Your task to perform on an android device: Open battery settings Image 0: 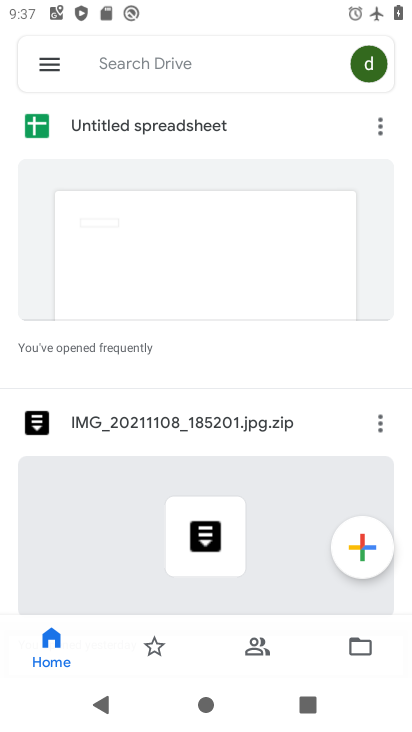
Step 0: press home button
Your task to perform on an android device: Open battery settings Image 1: 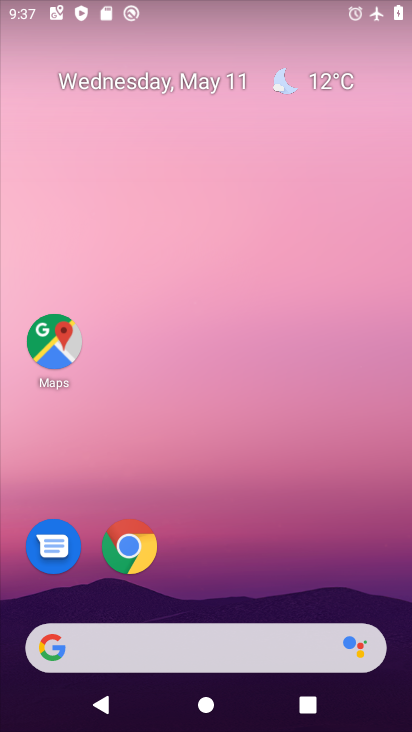
Step 1: drag from (397, 636) to (292, 84)
Your task to perform on an android device: Open battery settings Image 2: 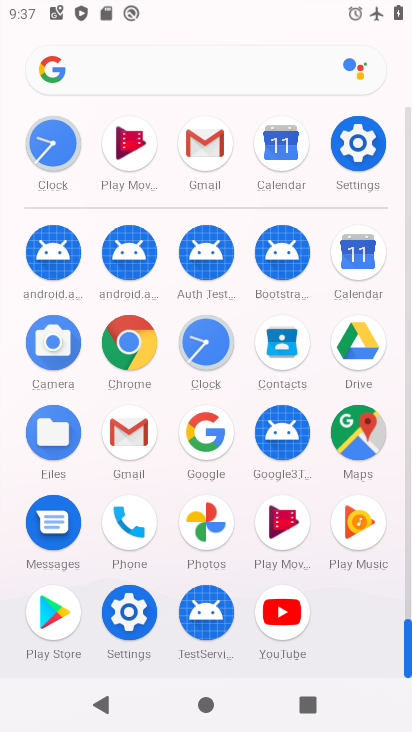
Step 2: click (128, 609)
Your task to perform on an android device: Open battery settings Image 3: 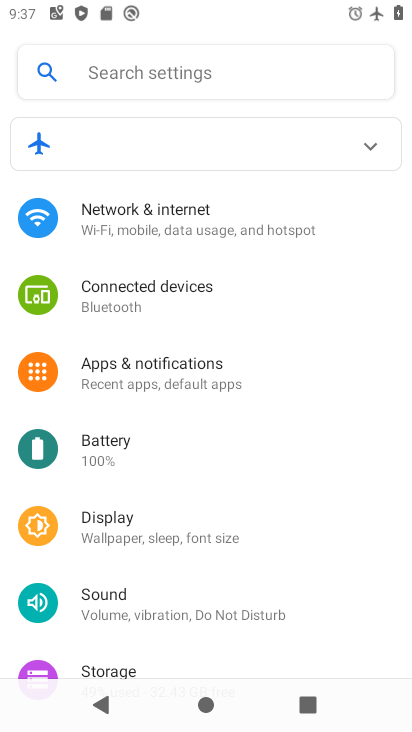
Step 3: click (109, 438)
Your task to perform on an android device: Open battery settings Image 4: 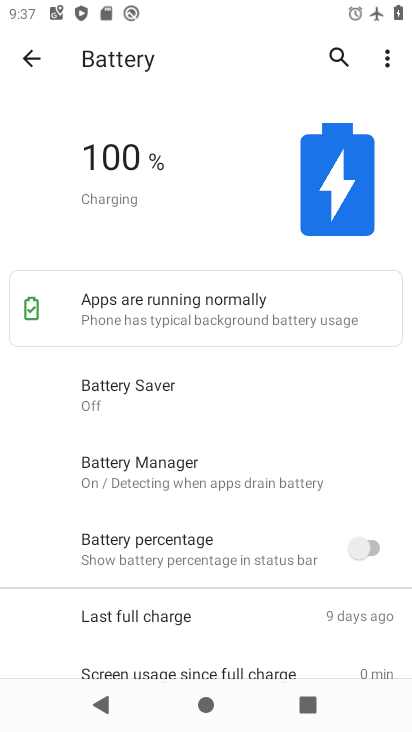
Step 4: task complete